Your task to perform on an android device: Open network settings Image 0: 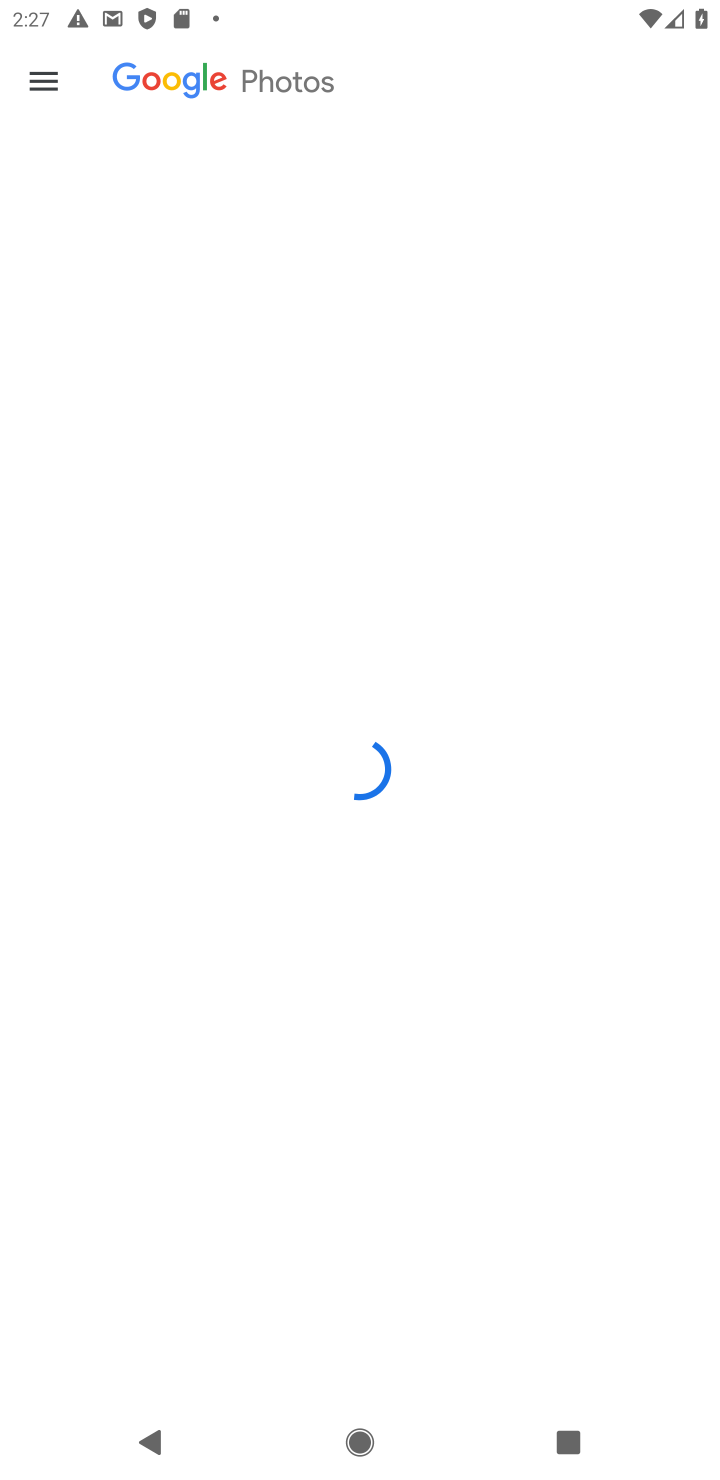
Step 0: press home button
Your task to perform on an android device: Open network settings Image 1: 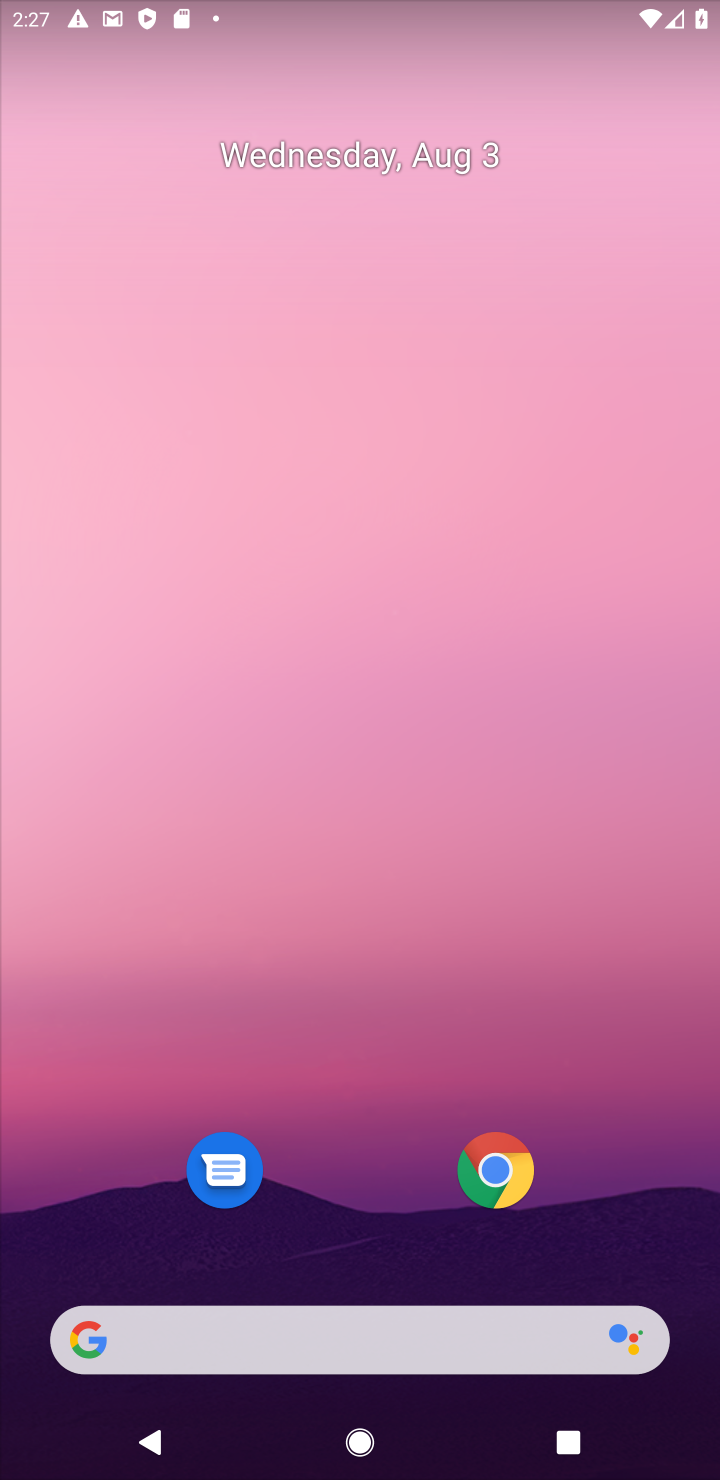
Step 1: drag from (297, 688) to (293, 548)
Your task to perform on an android device: Open network settings Image 2: 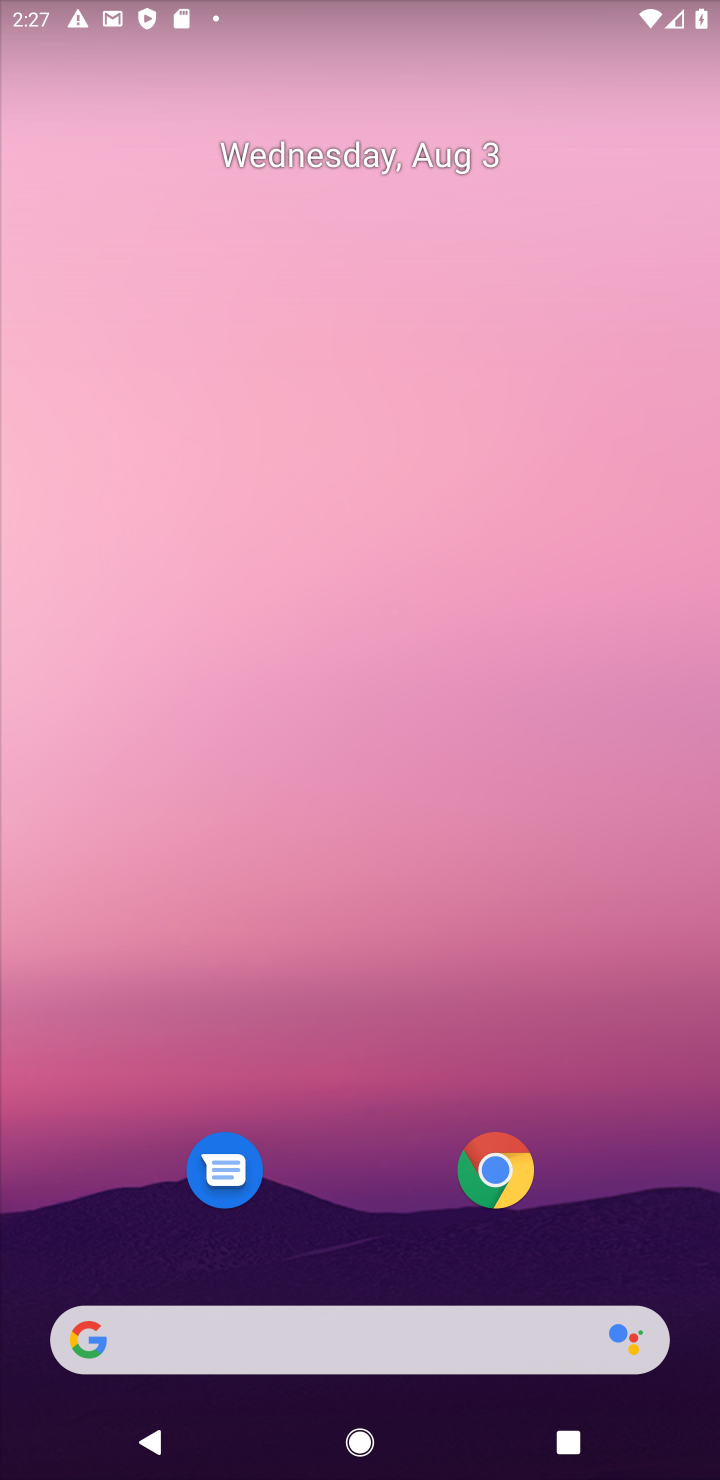
Step 2: drag from (364, 1182) to (373, 389)
Your task to perform on an android device: Open network settings Image 3: 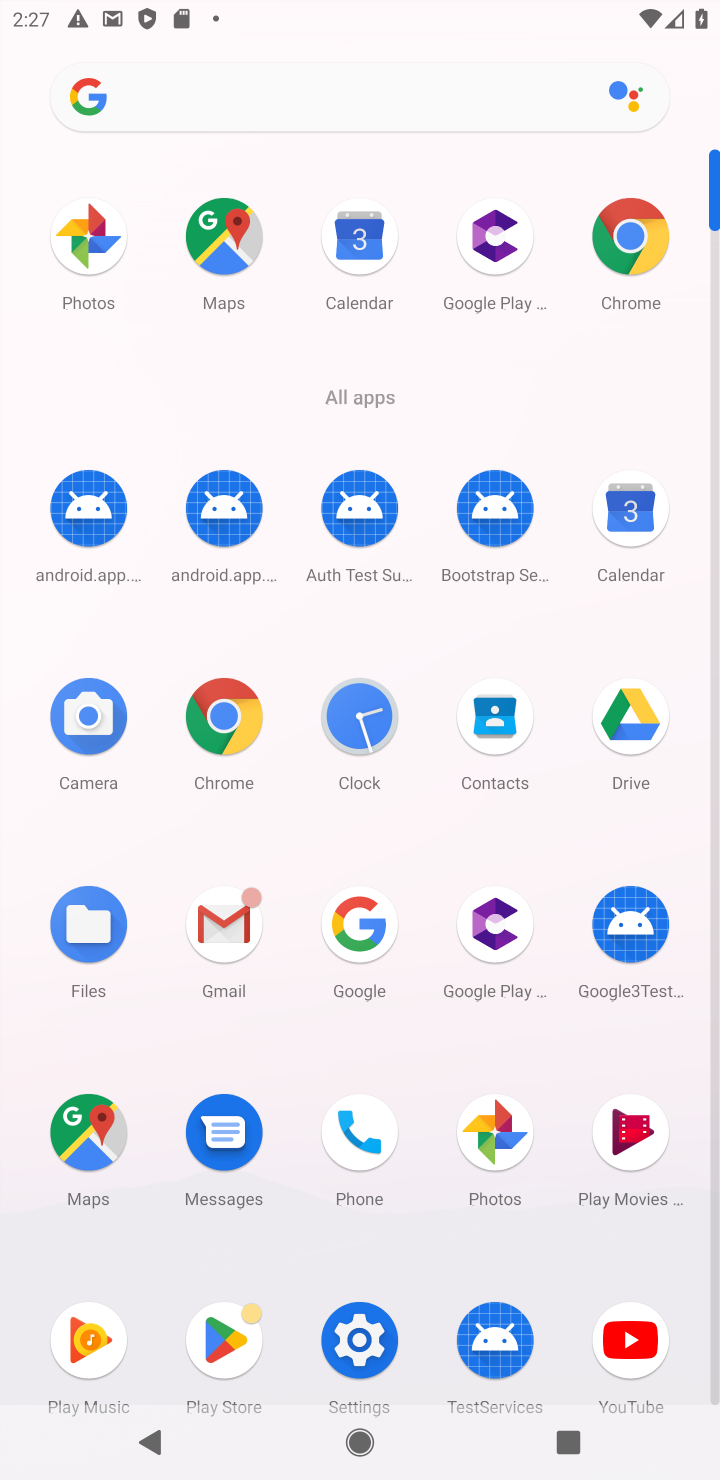
Step 3: click (354, 1318)
Your task to perform on an android device: Open network settings Image 4: 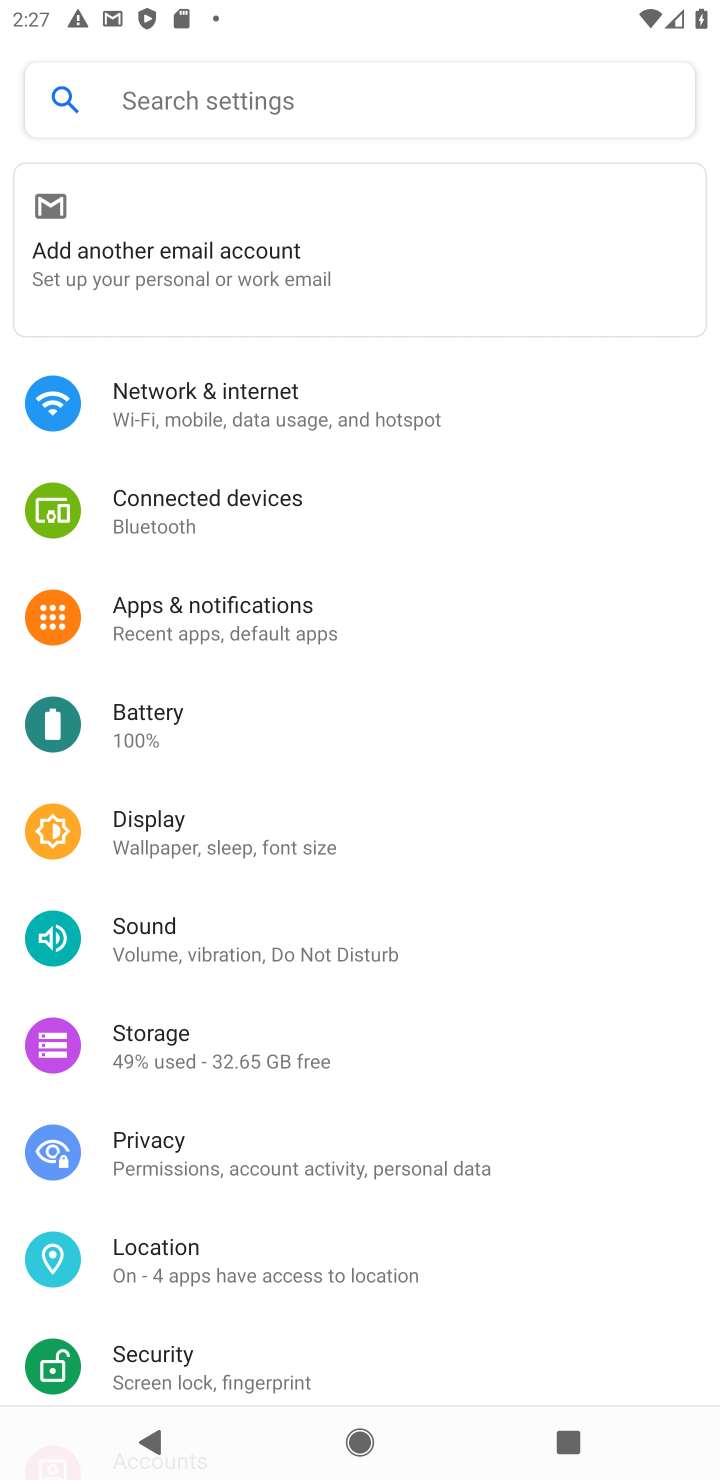
Step 4: click (246, 389)
Your task to perform on an android device: Open network settings Image 5: 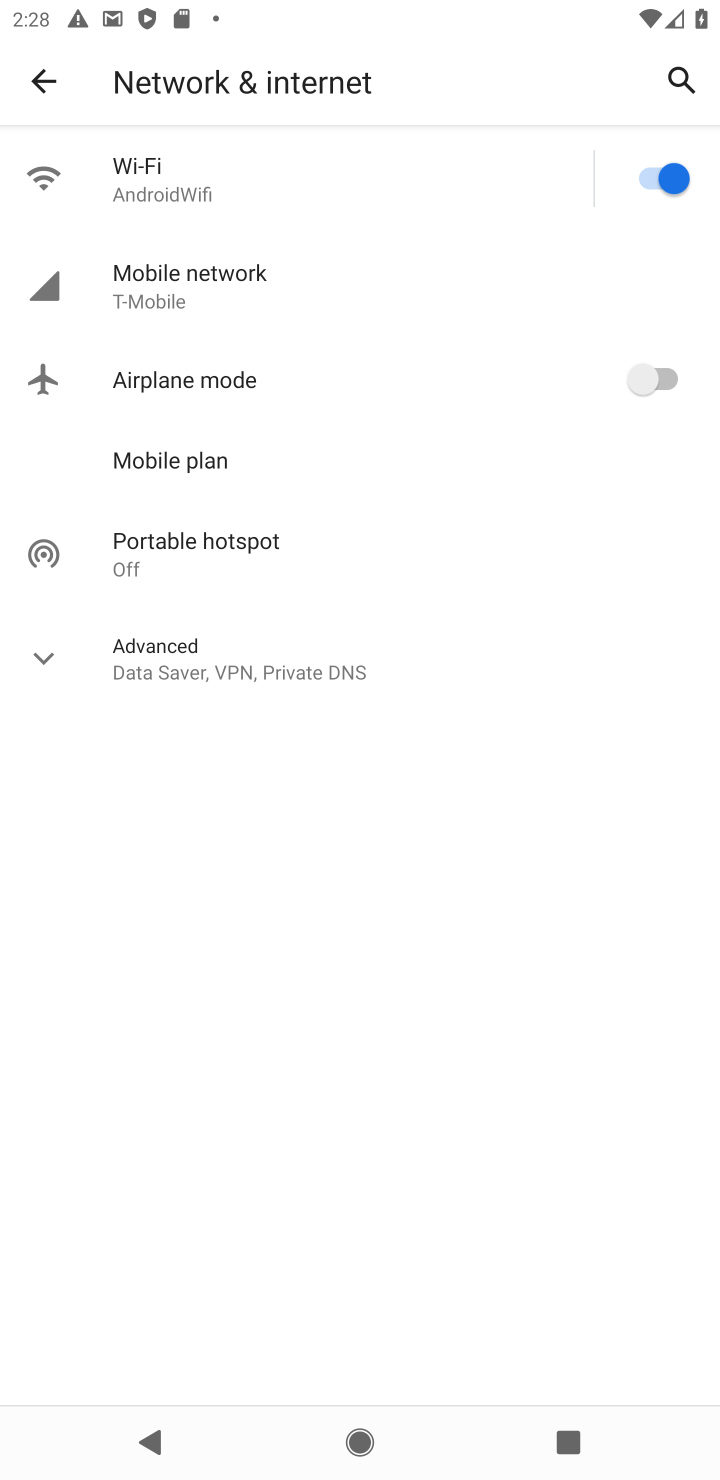
Step 5: task complete